Your task to perform on an android device: View the shopping cart on bestbuy. Search for rayovac triple a on bestbuy, select the first entry, and add it to the cart. Image 0: 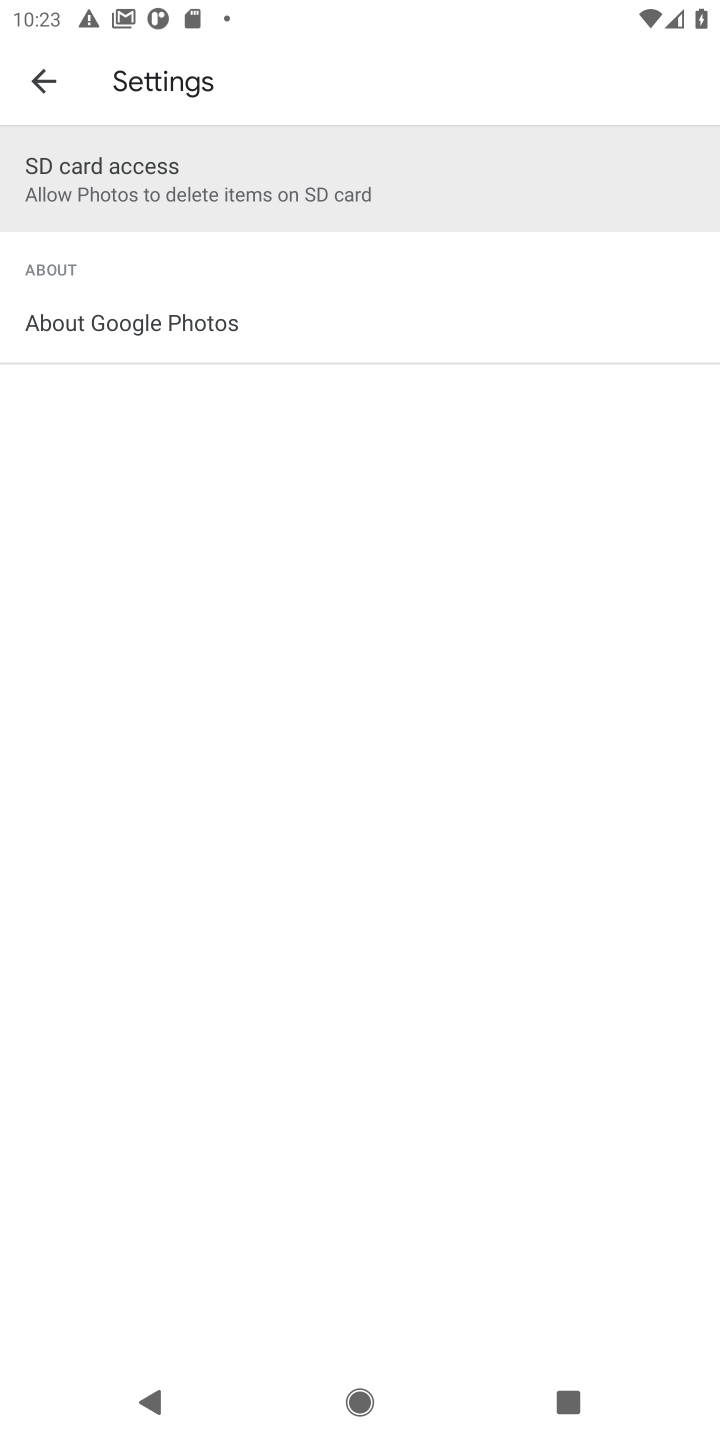
Step 0: press home button
Your task to perform on an android device: View the shopping cart on bestbuy. Search for rayovac triple a on bestbuy, select the first entry, and add it to the cart. Image 1: 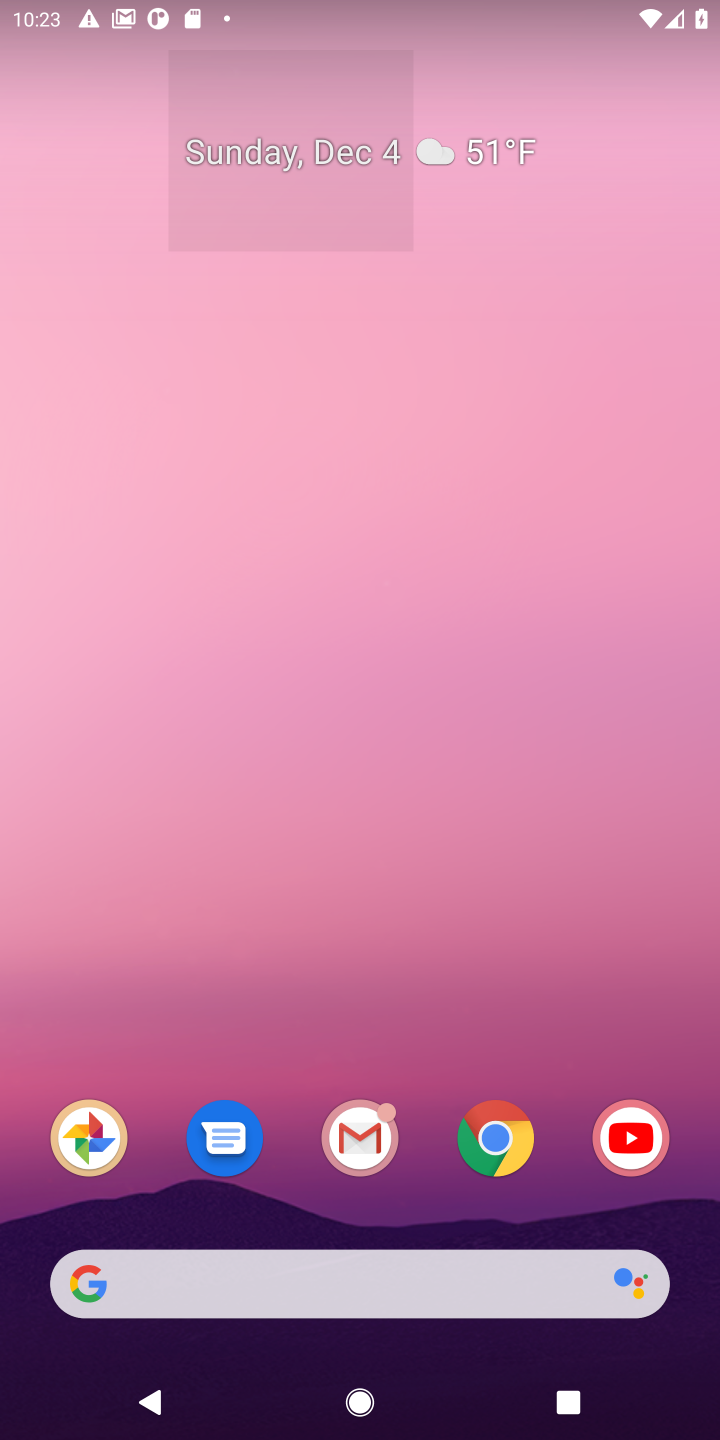
Step 1: click (515, 1133)
Your task to perform on an android device: View the shopping cart on bestbuy. Search for rayovac triple a on bestbuy, select the first entry, and add it to the cart. Image 2: 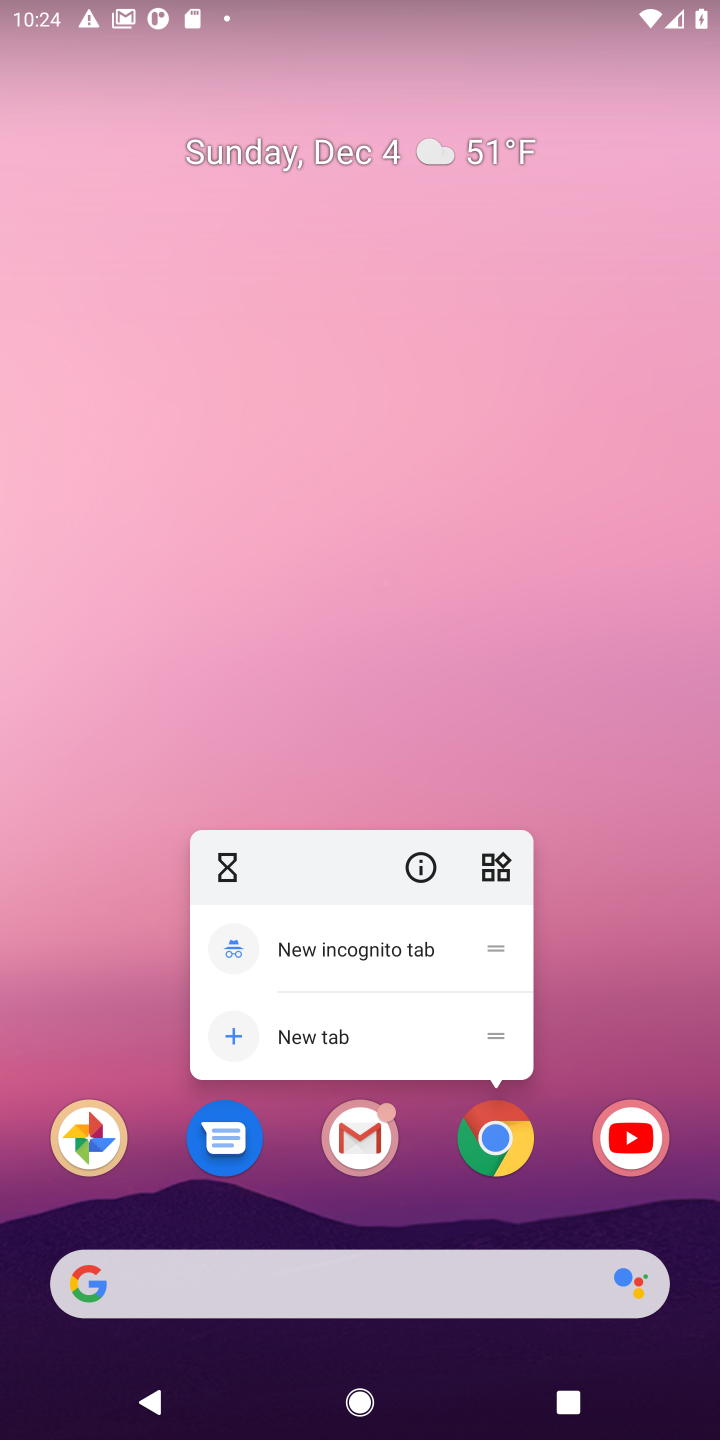
Step 2: click (481, 1125)
Your task to perform on an android device: View the shopping cart on bestbuy. Search for rayovac triple a on bestbuy, select the first entry, and add it to the cart. Image 3: 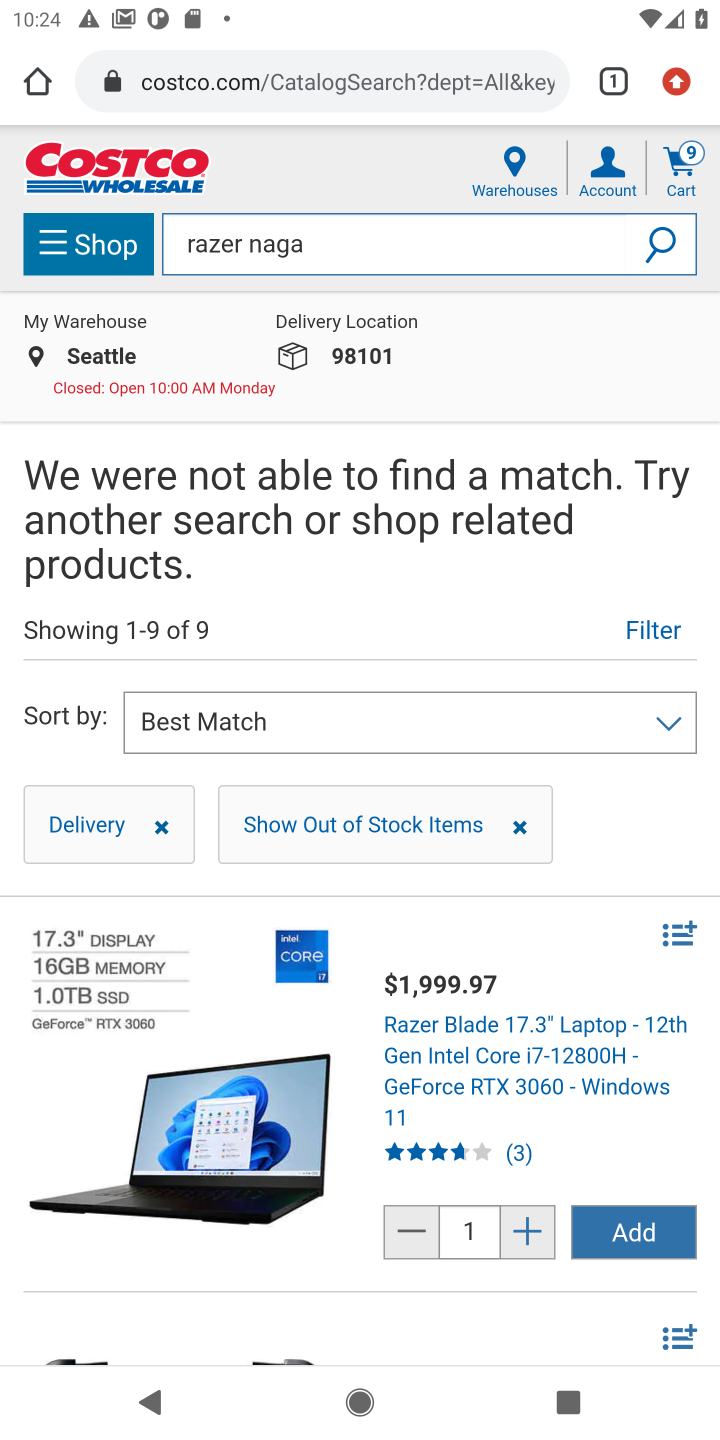
Step 3: click (388, 74)
Your task to perform on an android device: View the shopping cart on bestbuy. Search for rayovac triple a on bestbuy, select the first entry, and add it to the cart. Image 4: 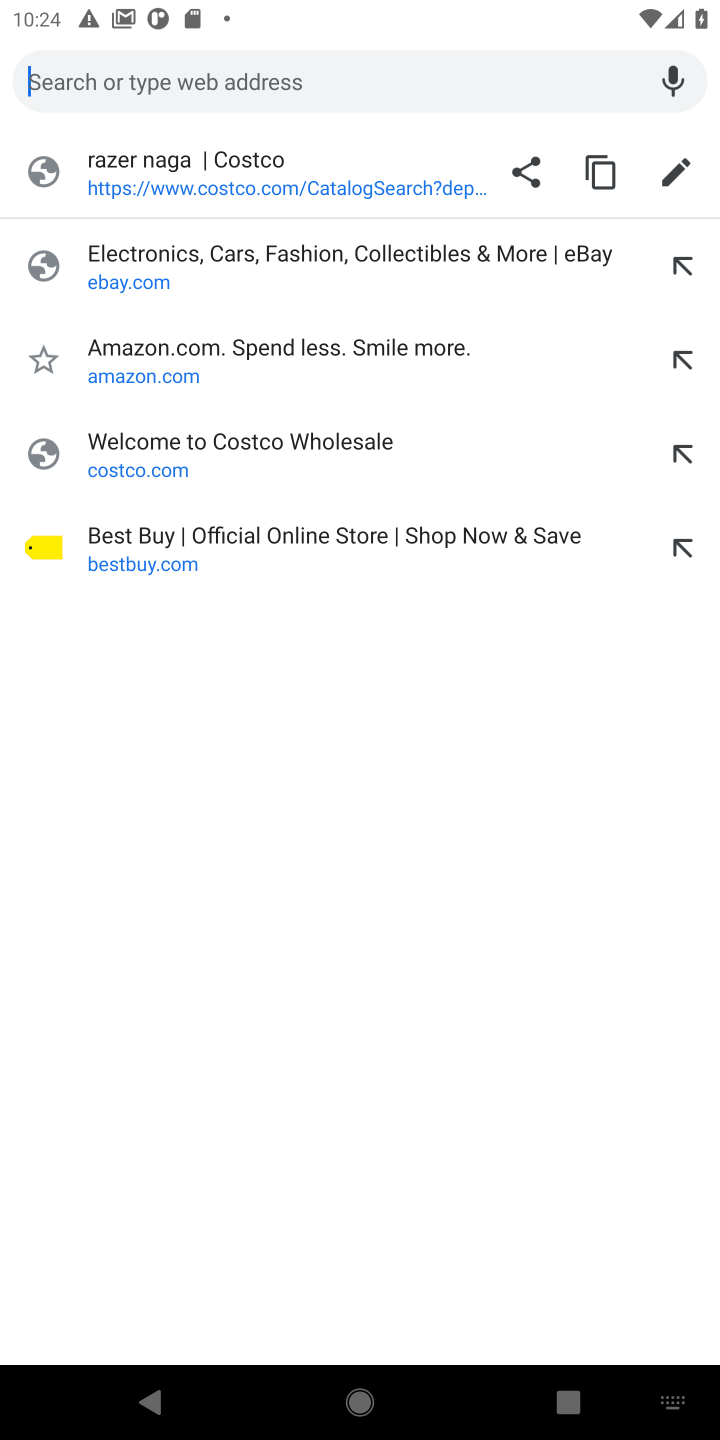
Step 4: click (248, 539)
Your task to perform on an android device: View the shopping cart on bestbuy. Search for rayovac triple a on bestbuy, select the first entry, and add it to the cart. Image 5: 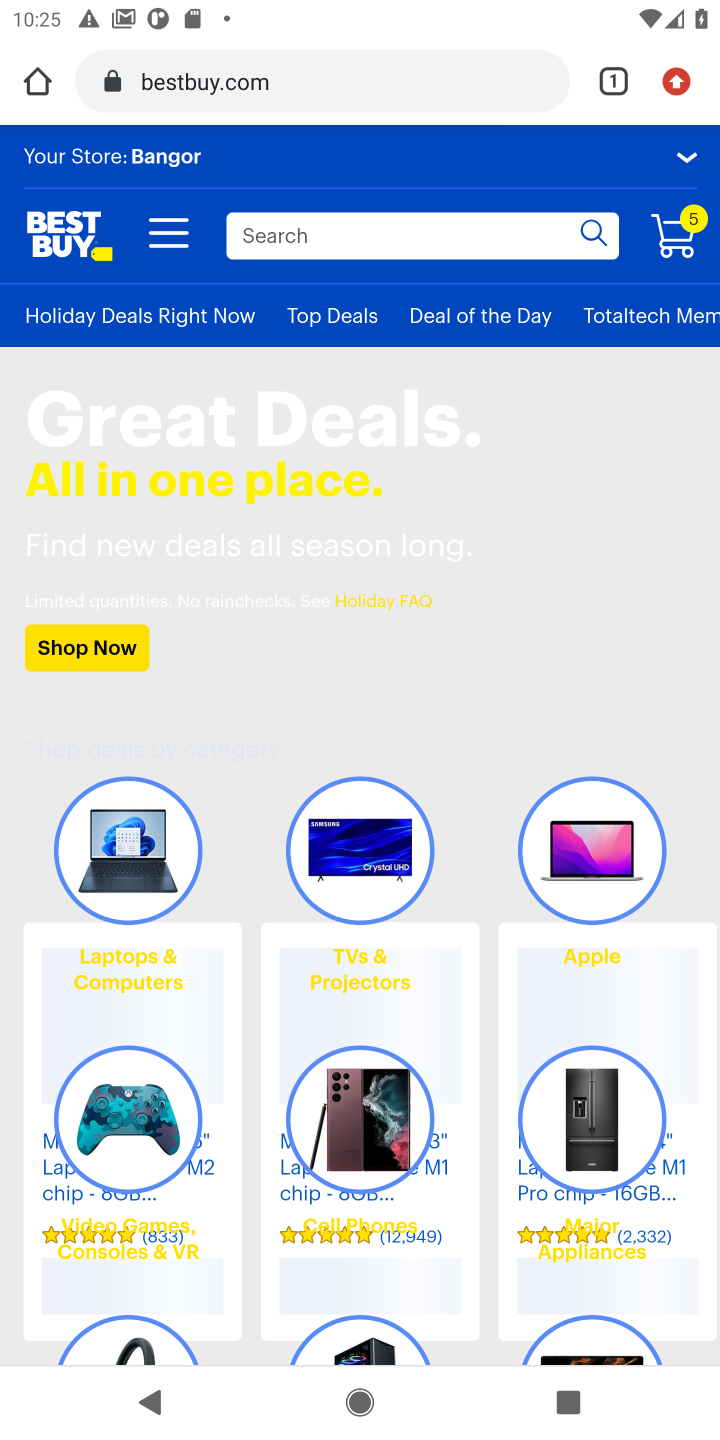
Step 5: click (674, 242)
Your task to perform on an android device: View the shopping cart on bestbuy. Search for rayovac triple a on bestbuy, select the first entry, and add it to the cart. Image 6: 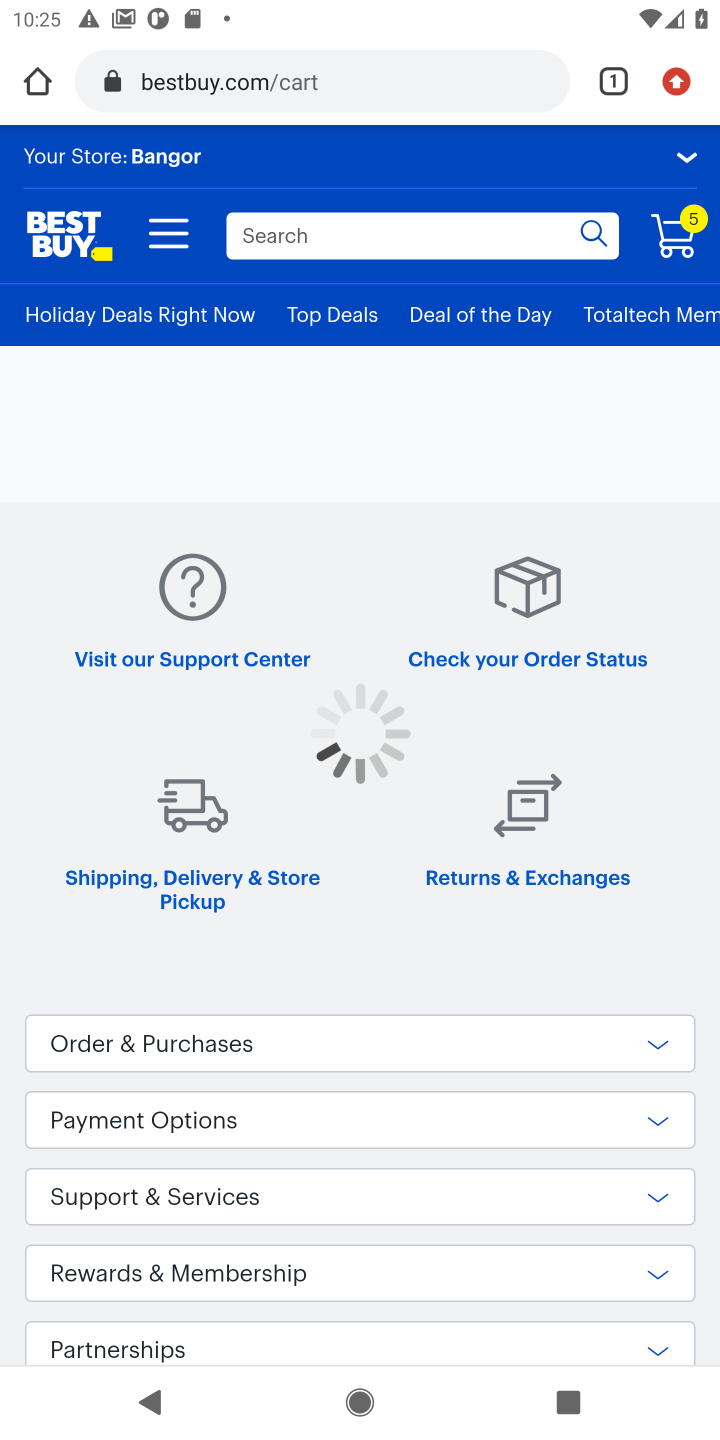
Step 6: click (476, 225)
Your task to perform on an android device: View the shopping cart on bestbuy. Search for rayovac triple a on bestbuy, select the first entry, and add it to the cart. Image 7: 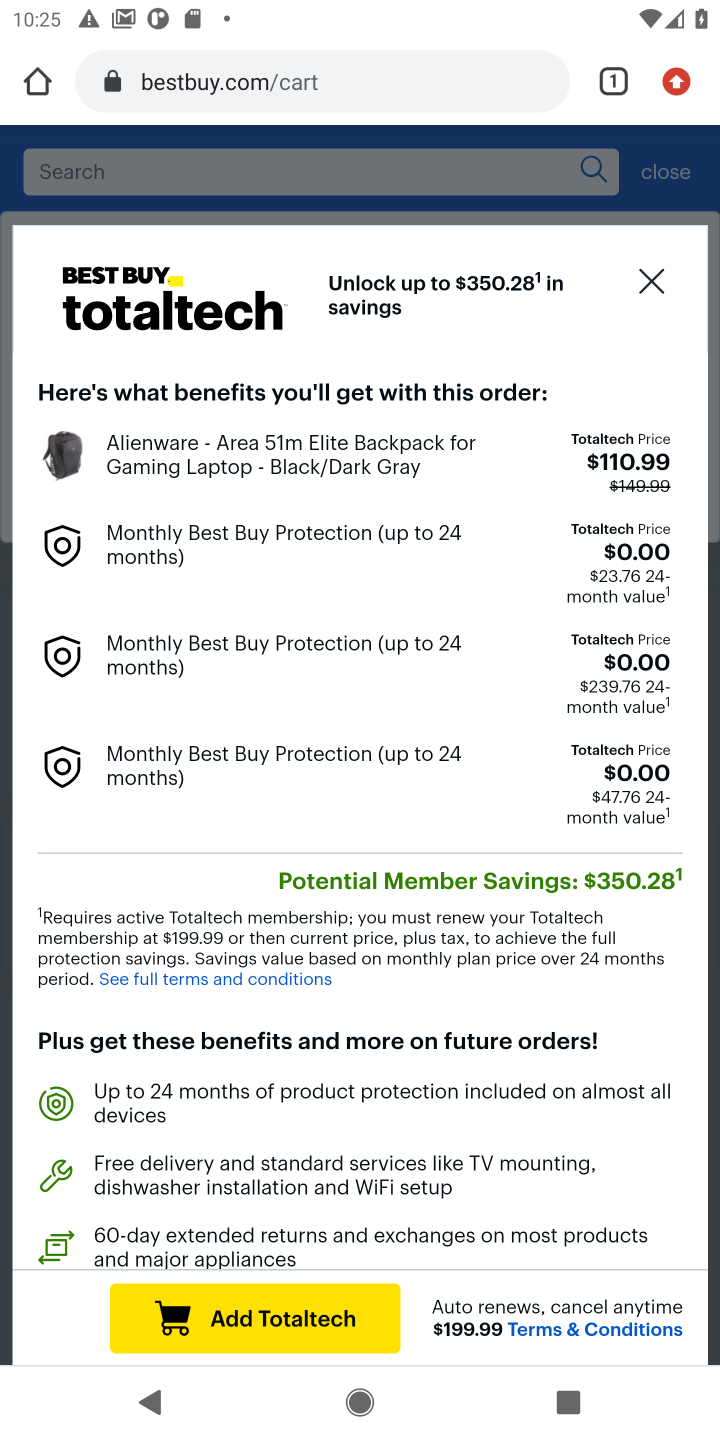
Step 7: type "rayovac triple a"
Your task to perform on an android device: View the shopping cart on bestbuy. Search for rayovac triple a on bestbuy, select the first entry, and add it to the cart. Image 8: 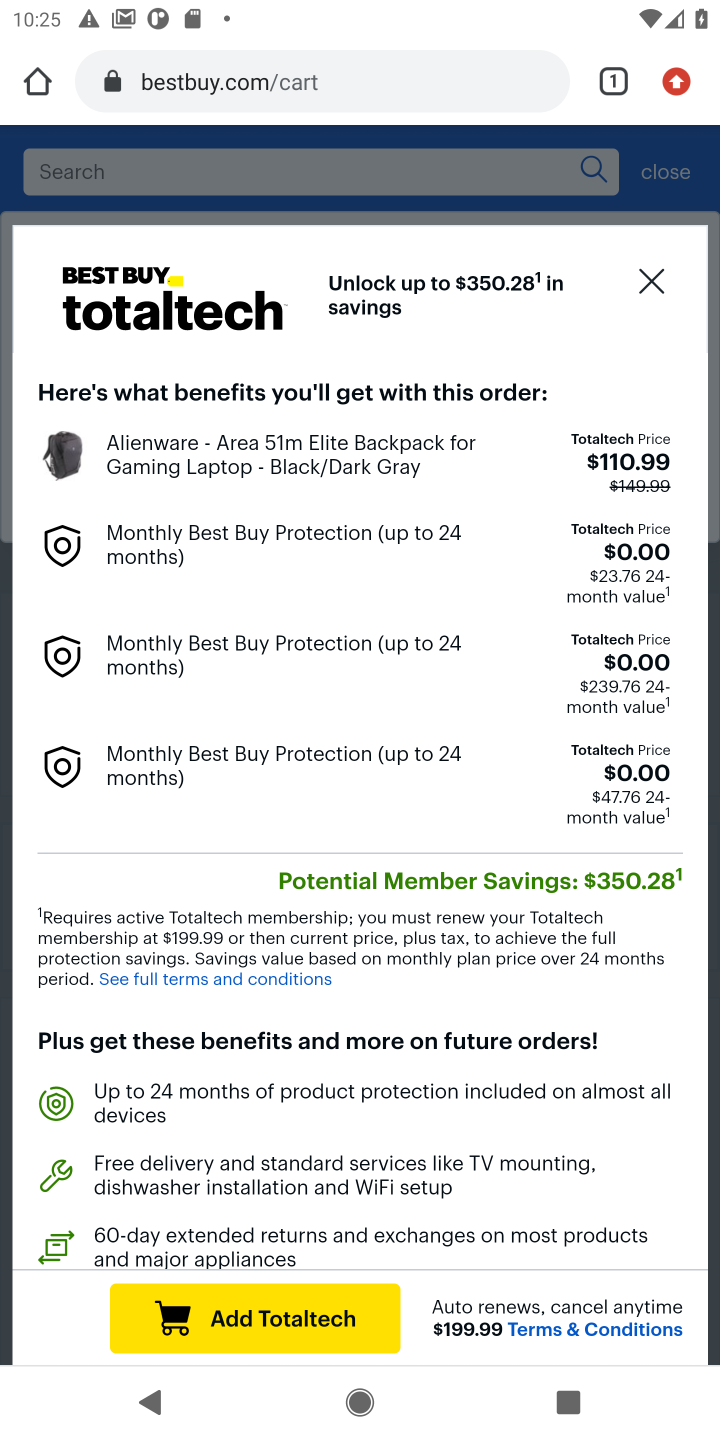
Step 8: click (648, 275)
Your task to perform on an android device: View the shopping cart on bestbuy. Search for rayovac triple a on bestbuy, select the first entry, and add it to the cart. Image 9: 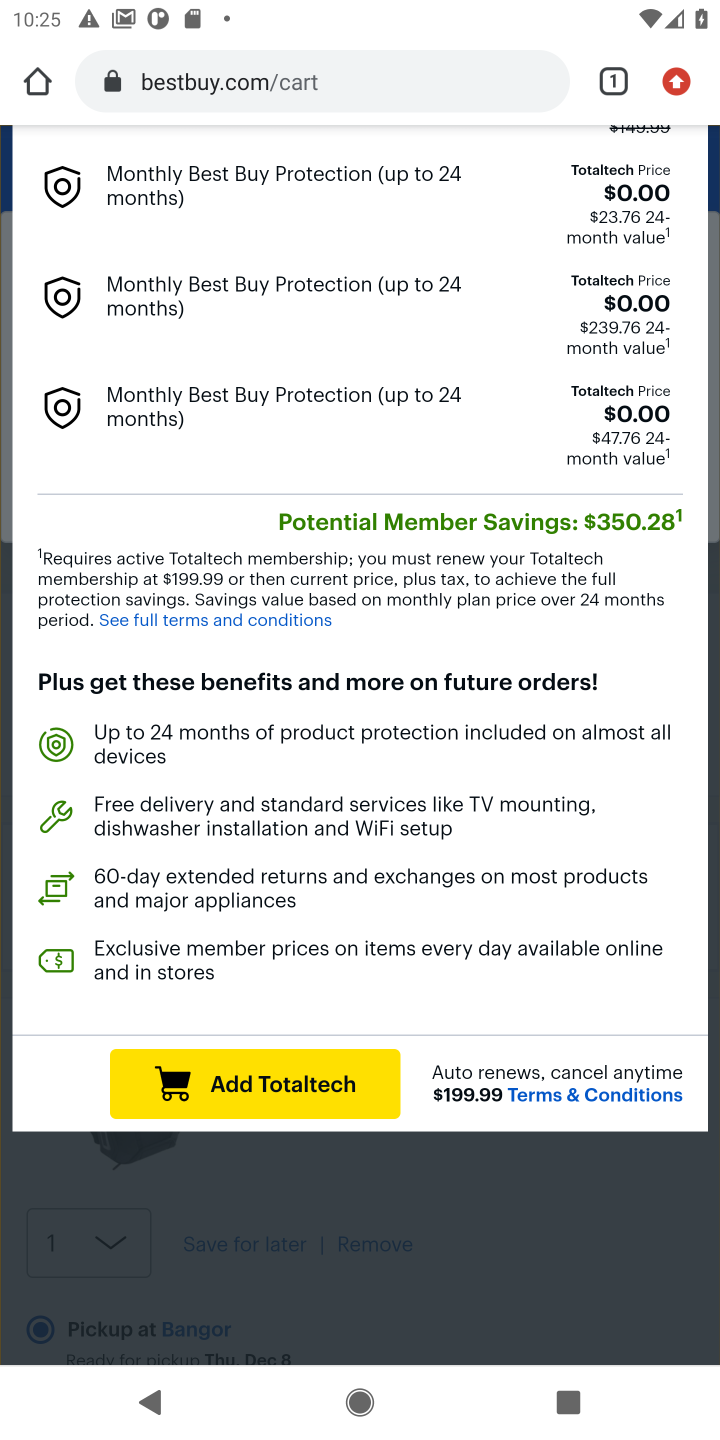
Step 9: drag from (580, 463) to (637, 1203)
Your task to perform on an android device: View the shopping cart on bestbuy. Search for rayovac triple a on bestbuy, select the first entry, and add it to the cart. Image 10: 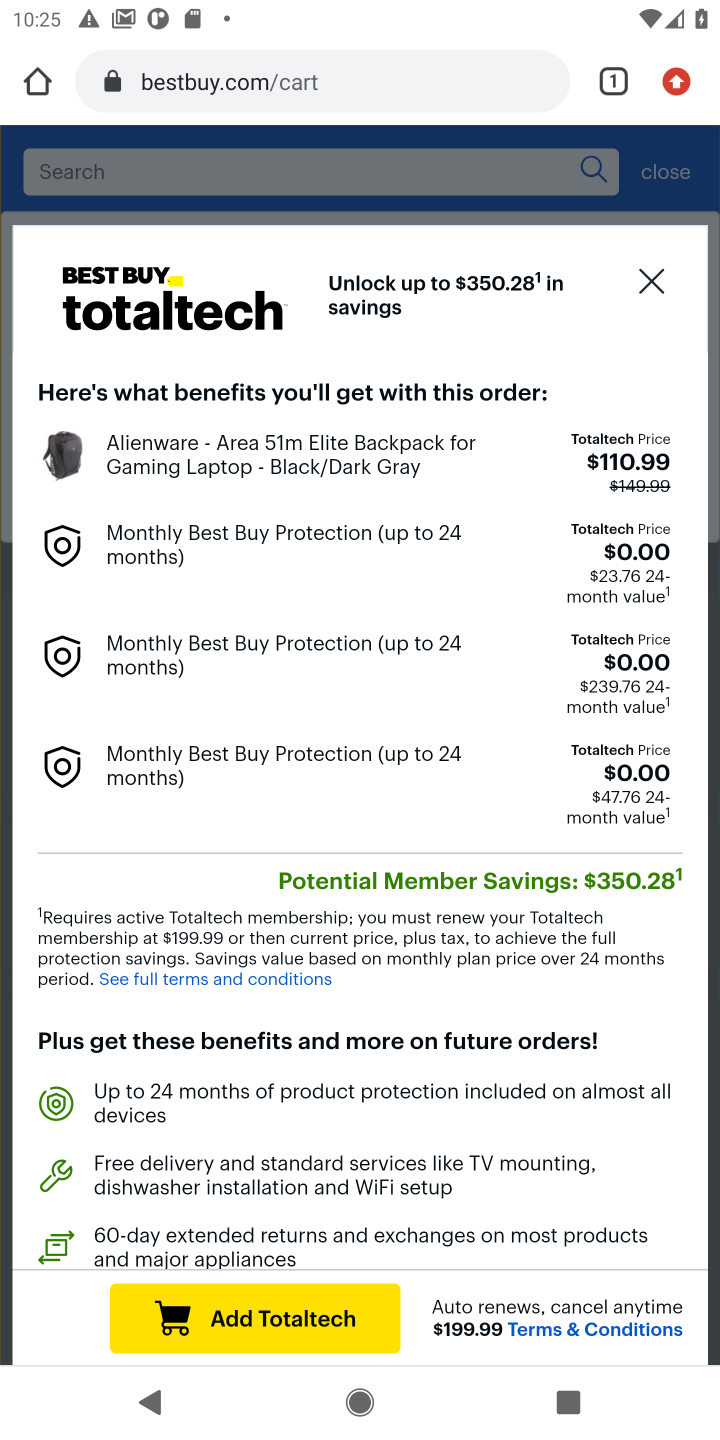
Step 10: click (651, 276)
Your task to perform on an android device: View the shopping cart on bestbuy. Search for rayovac triple a on bestbuy, select the first entry, and add it to the cart. Image 11: 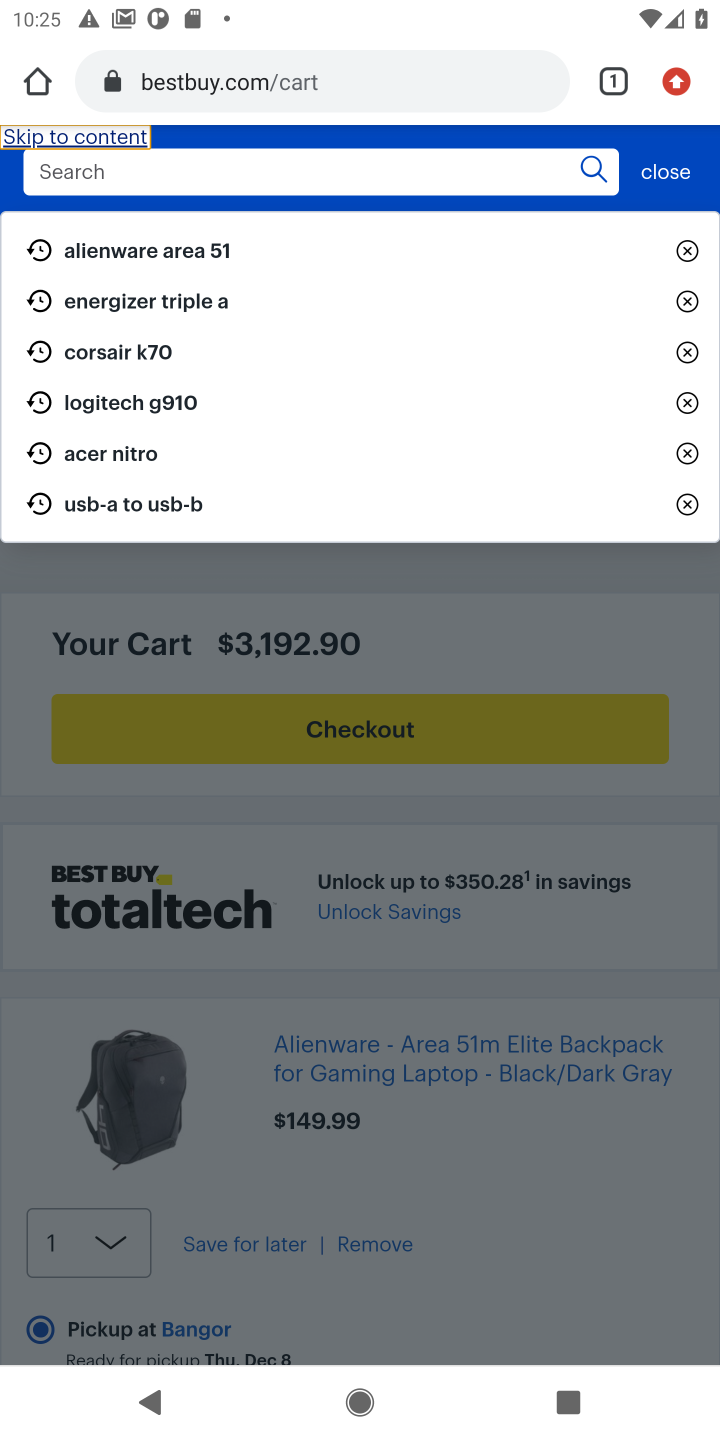
Step 11: click (440, 165)
Your task to perform on an android device: View the shopping cart on bestbuy. Search for rayovac triple a on bestbuy, select the first entry, and add it to the cart. Image 12: 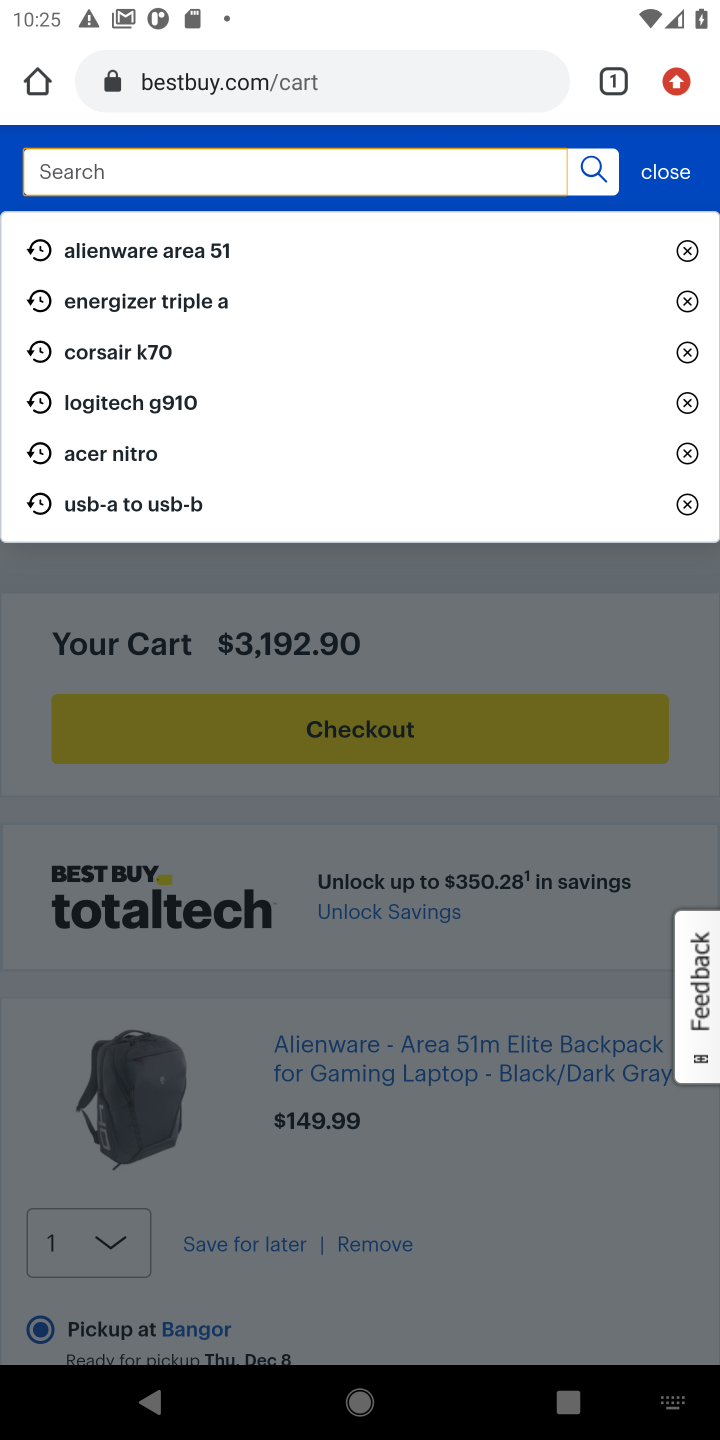
Step 12: type "rayovac triple a"
Your task to perform on an android device: View the shopping cart on bestbuy. Search for rayovac triple a on bestbuy, select the first entry, and add it to the cart. Image 13: 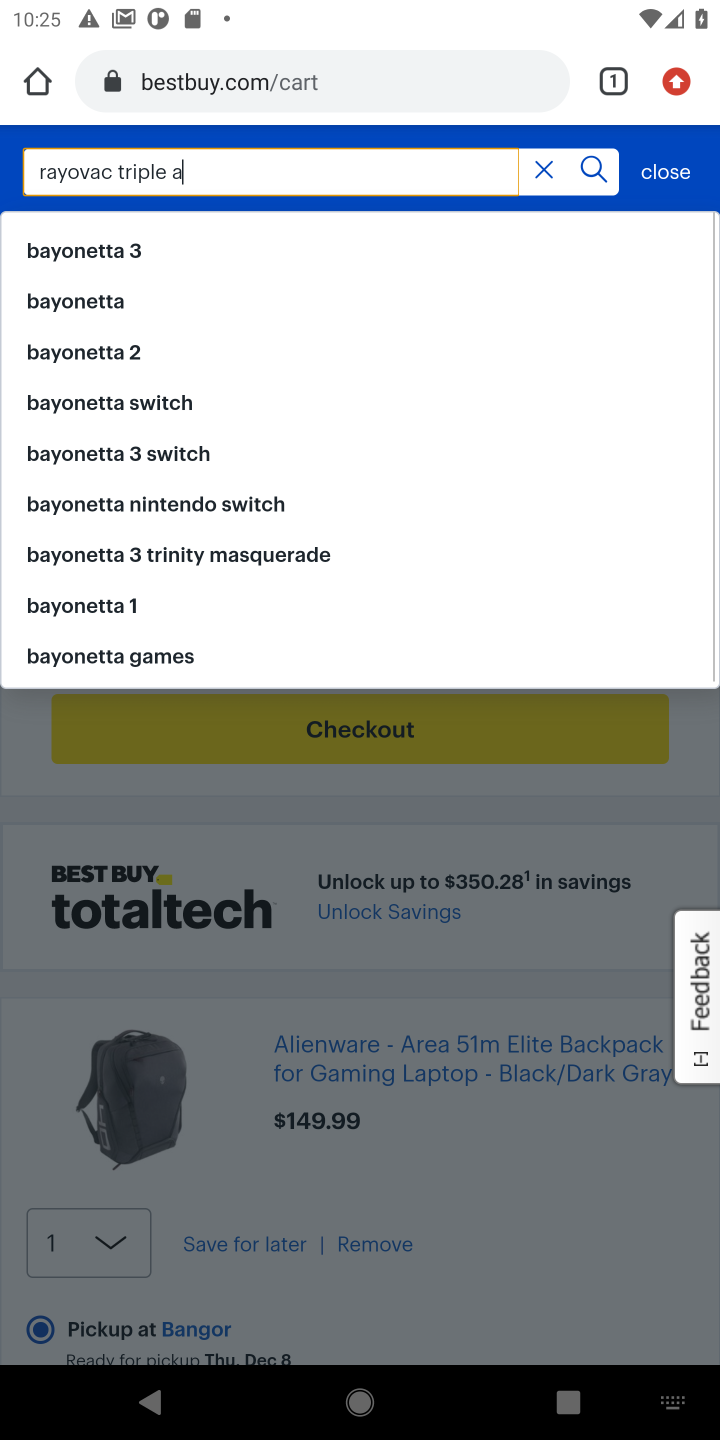
Step 13: press enter
Your task to perform on an android device: View the shopping cart on bestbuy. Search for rayovac triple a on bestbuy, select the first entry, and add it to the cart. Image 14: 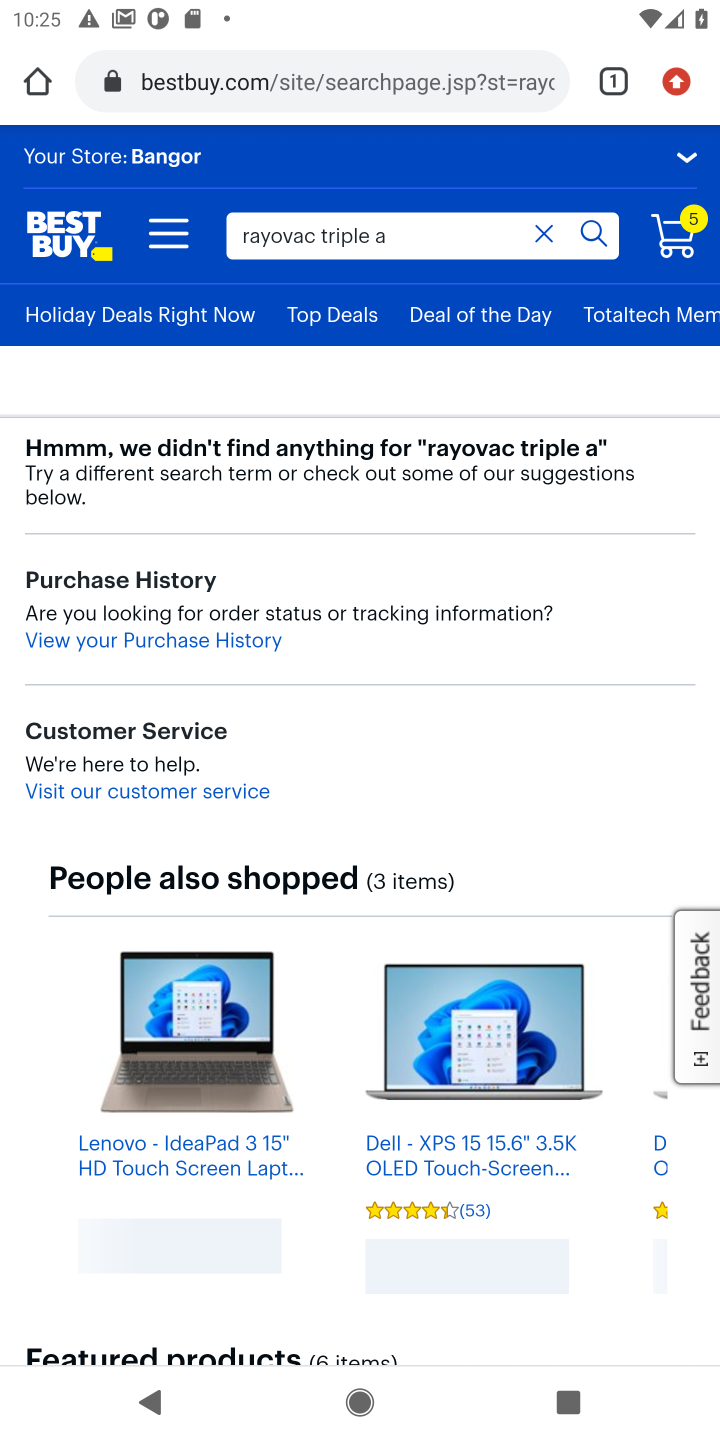
Step 14: task complete